Your task to perform on an android device: Go to location settings Image 0: 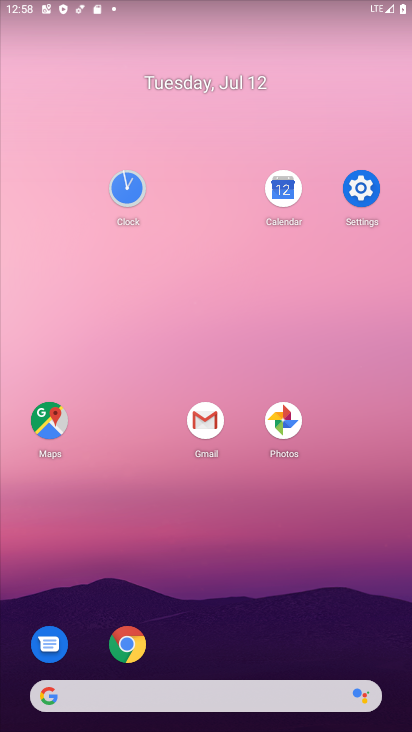
Step 0: click (356, 189)
Your task to perform on an android device: Go to location settings Image 1: 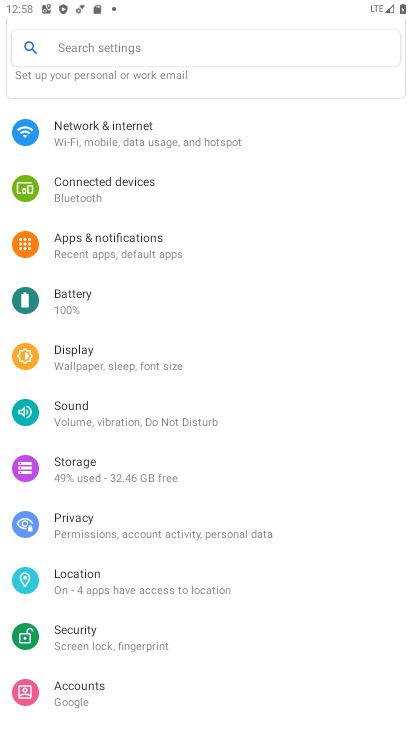
Step 1: click (118, 594)
Your task to perform on an android device: Go to location settings Image 2: 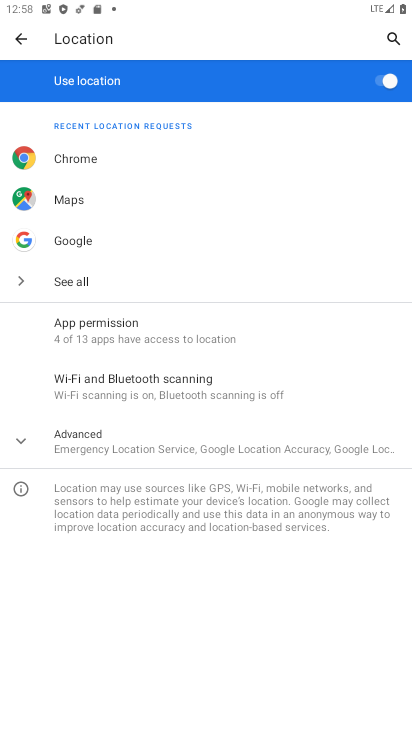
Step 2: task complete